Your task to perform on an android device: change alarm snooze length Image 0: 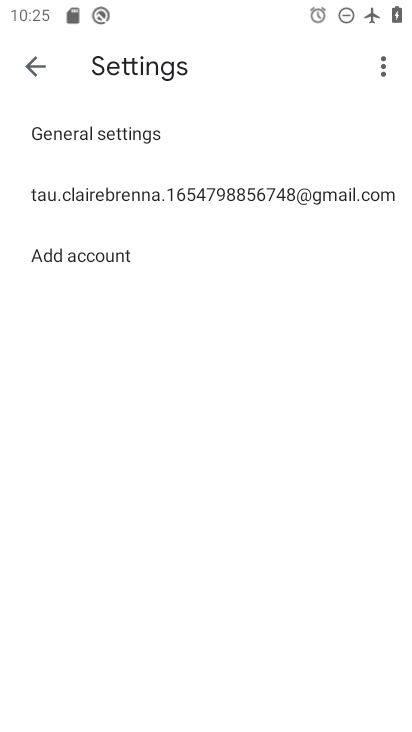
Step 0: press home button
Your task to perform on an android device: change alarm snooze length Image 1: 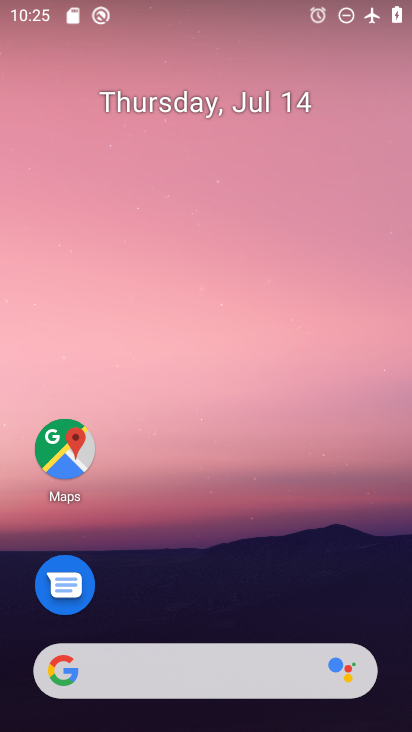
Step 1: drag from (208, 628) to (91, 116)
Your task to perform on an android device: change alarm snooze length Image 2: 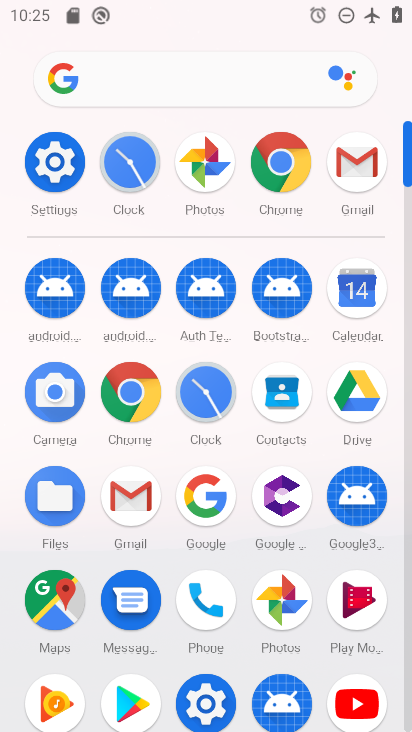
Step 2: click (203, 371)
Your task to perform on an android device: change alarm snooze length Image 3: 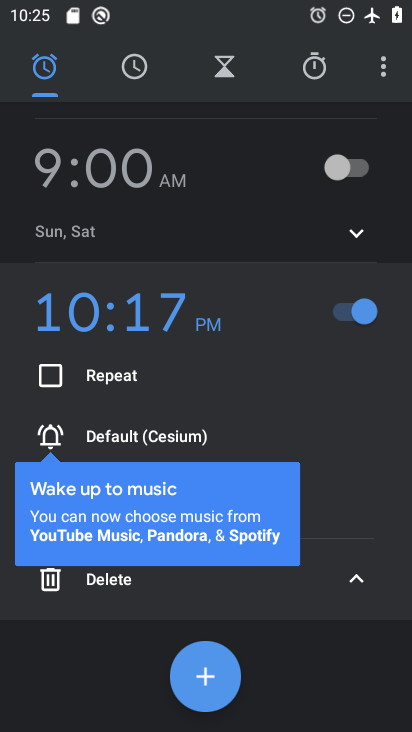
Step 3: click (384, 73)
Your task to perform on an android device: change alarm snooze length Image 4: 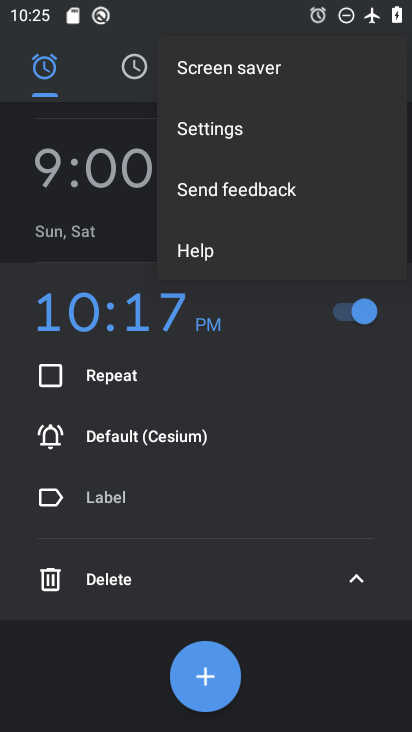
Step 4: click (236, 130)
Your task to perform on an android device: change alarm snooze length Image 5: 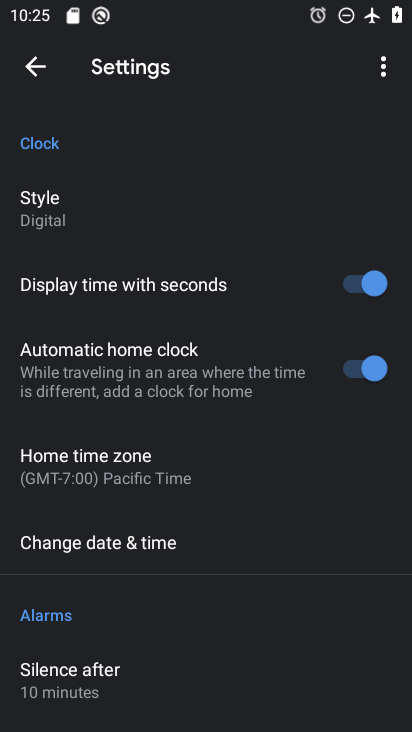
Step 5: drag from (157, 550) to (123, 136)
Your task to perform on an android device: change alarm snooze length Image 6: 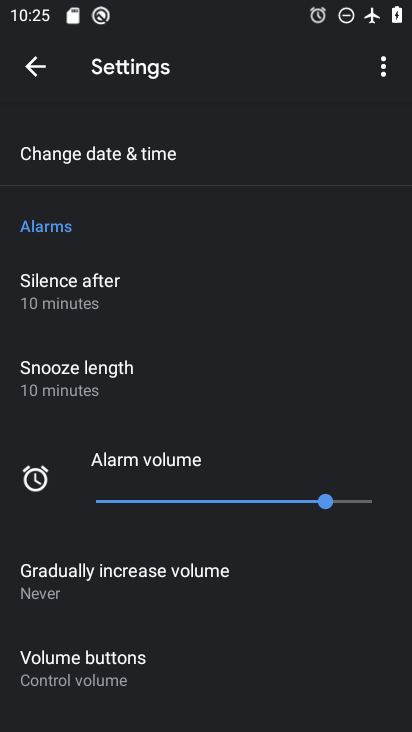
Step 6: click (140, 363)
Your task to perform on an android device: change alarm snooze length Image 7: 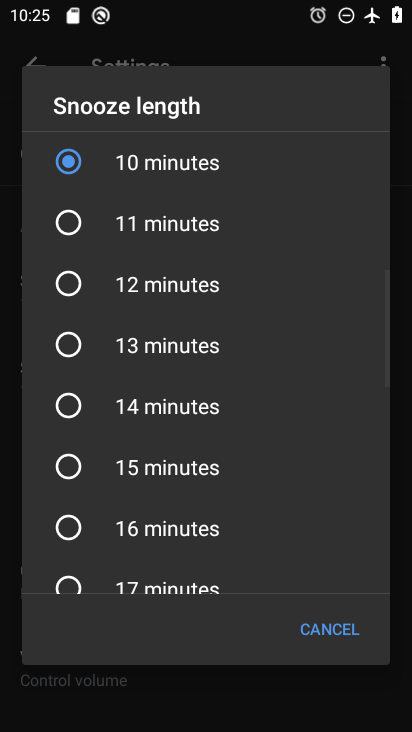
Step 7: click (97, 252)
Your task to perform on an android device: change alarm snooze length Image 8: 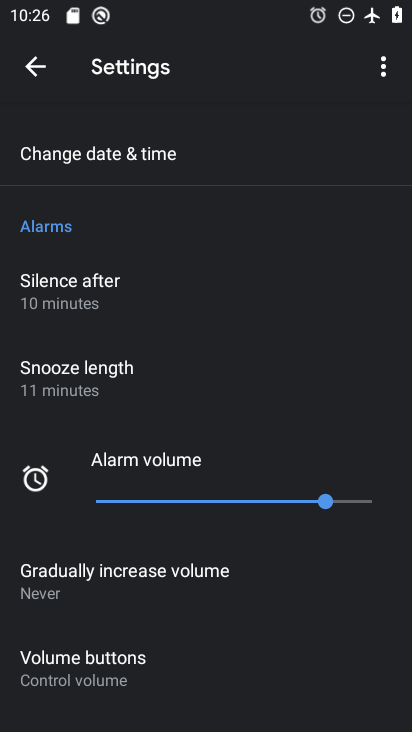
Step 8: task complete